Your task to perform on an android device: Clear all items from cart on ebay.com. Search for alienware area 51 on ebay.com, select the first entry, add it to the cart, then select checkout. Image 0: 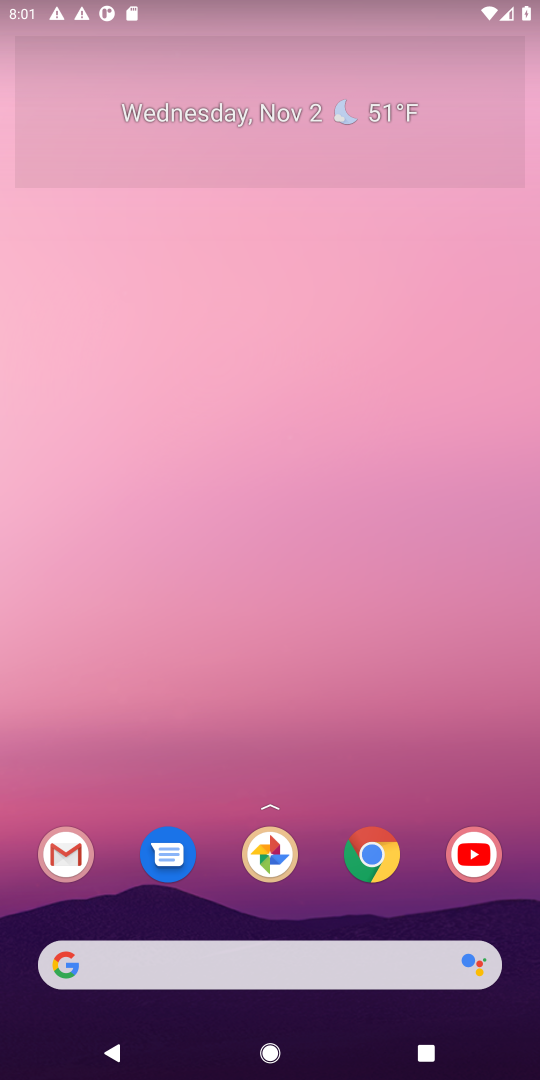
Step 0: click (381, 865)
Your task to perform on an android device: Clear all items from cart on ebay.com. Search for alienware area 51 on ebay.com, select the first entry, add it to the cart, then select checkout. Image 1: 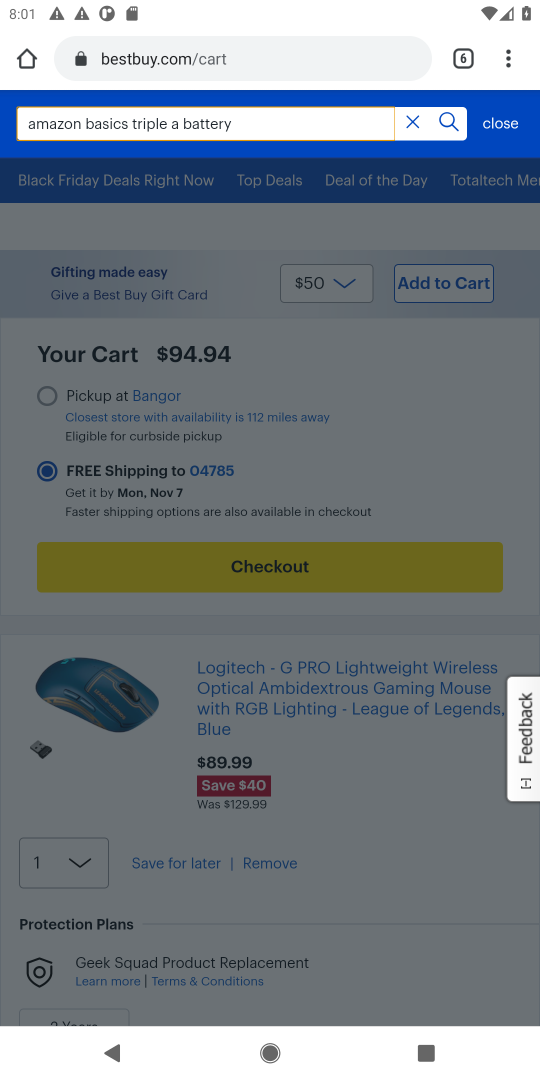
Step 1: click (464, 57)
Your task to perform on an android device: Clear all items from cart on ebay.com. Search for alienware area 51 on ebay.com, select the first entry, add it to the cart, then select checkout. Image 2: 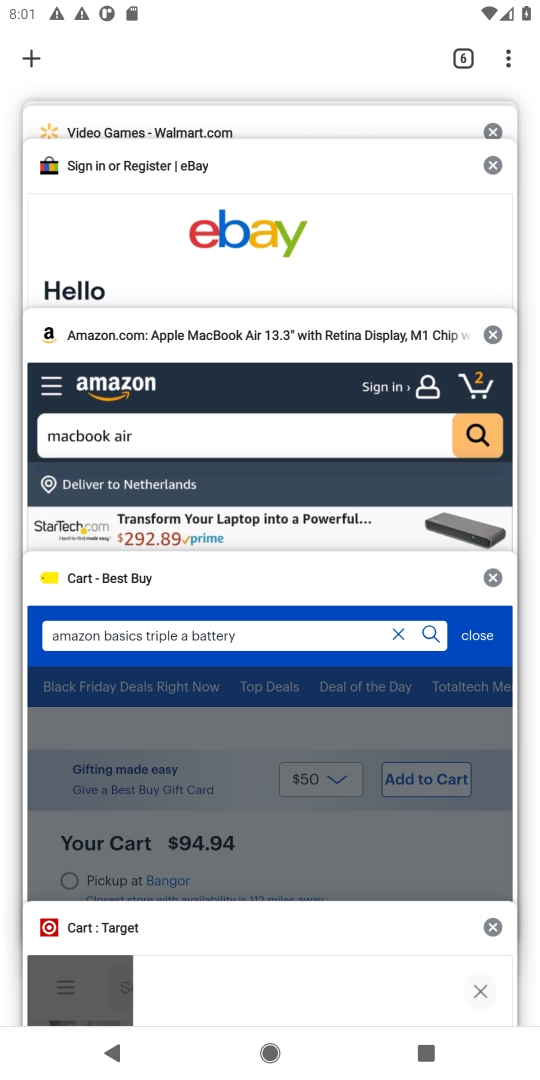
Step 2: click (269, 193)
Your task to perform on an android device: Clear all items from cart on ebay.com. Search for alienware area 51 on ebay.com, select the first entry, add it to the cart, then select checkout. Image 3: 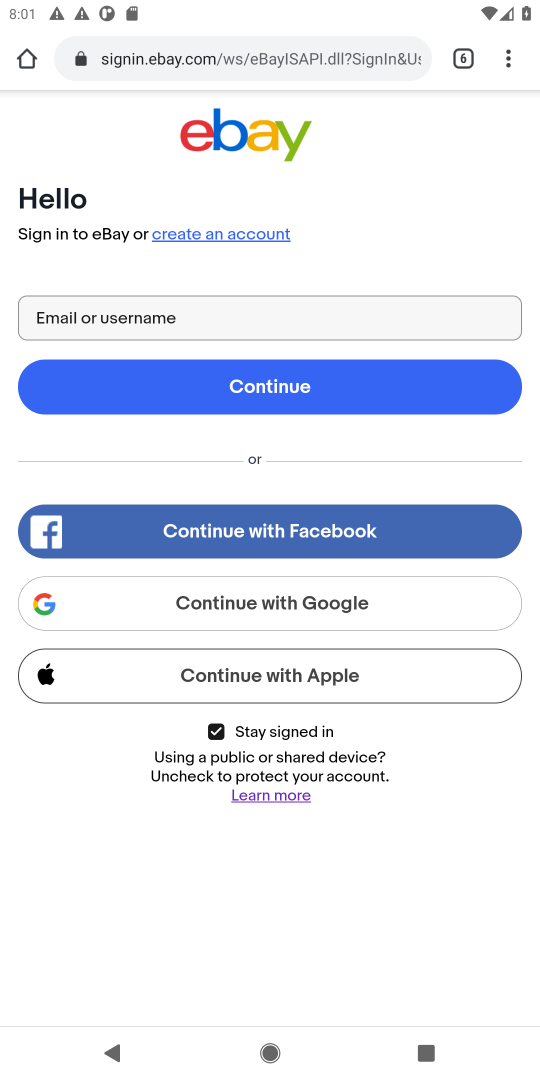
Step 3: press back button
Your task to perform on an android device: Clear all items from cart on ebay.com. Search for alienware area 51 on ebay.com, select the first entry, add it to the cart, then select checkout. Image 4: 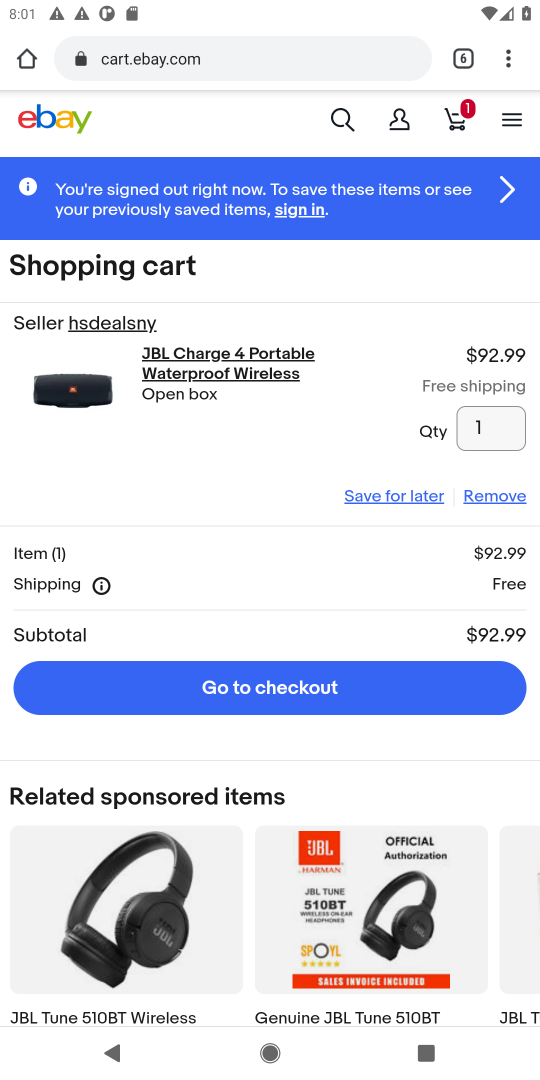
Step 4: click (349, 126)
Your task to perform on an android device: Clear all items from cart on ebay.com. Search for alienware area 51 on ebay.com, select the first entry, add it to the cart, then select checkout. Image 5: 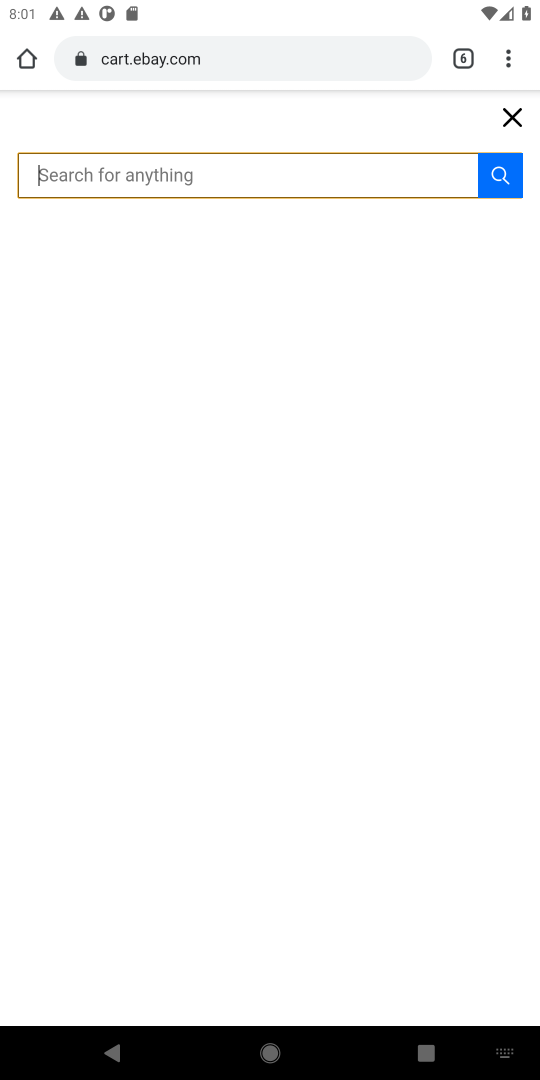
Step 5: type "alienware area 51"
Your task to perform on an android device: Clear all items from cart on ebay.com. Search for alienware area 51 on ebay.com, select the first entry, add it to the cart, then select checkout. Image 6: 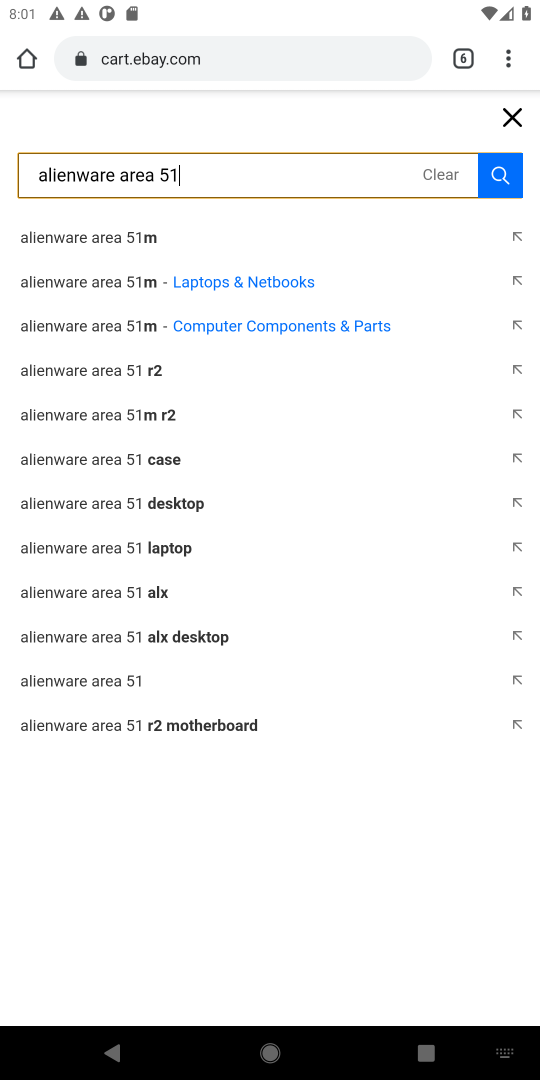
Step 6: click (97, 270)
Your task to perform on an android device: Clear all items from cart on ebay.com. Search for alienware area 51 on ebay.com, select the first entry, add it to the cart, then select checkout. Image 7: 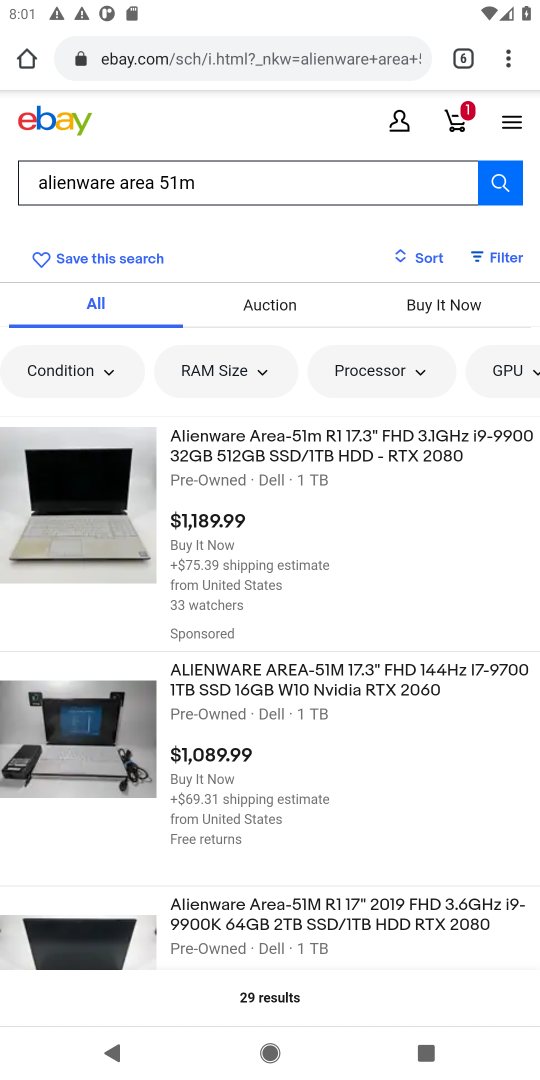
Step 7: click (243, 464)
Your task to perform on an android device: Clear all items from cart on ebay.com. Search for alienware area 51 on ebay.com, select the first entry, add it to the cart, then select checkout. Image 8: 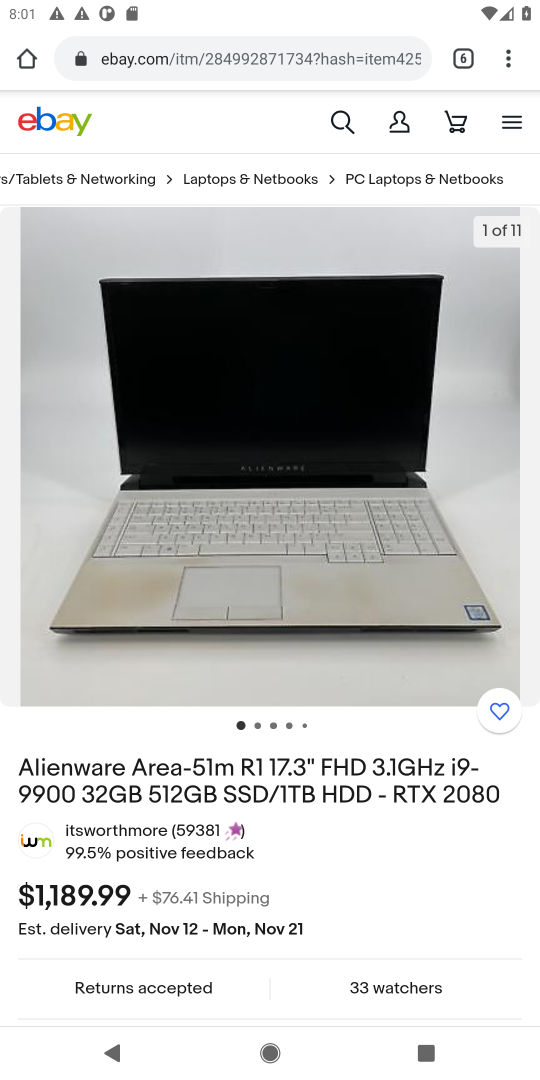
Step 8: drag from (286, 882) to (438, 80)
Your task to perform on an android device: Clear all items from cart on ebay.com. Search for alienware area 51 on ebay.com, select the first entry, add it to the cart, then select checkout. Image 9: 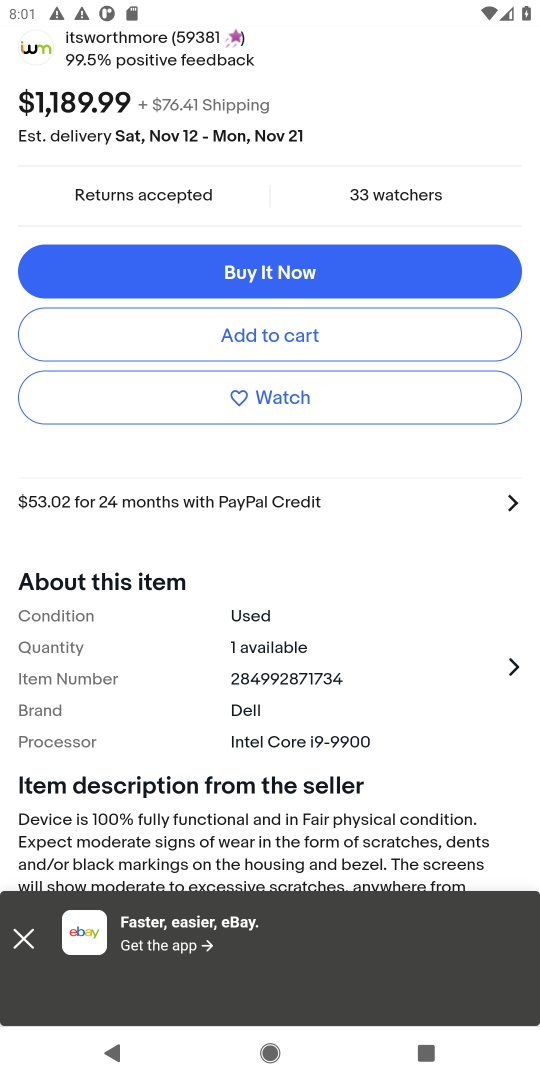
Step 9: click (291, 340)
Your task to perform on an android device: Clear all items from cart on ebay.com. Search for alienware area 51 on ebay.com, select the first entry, add it to the cart, then select checkout. Image 10: 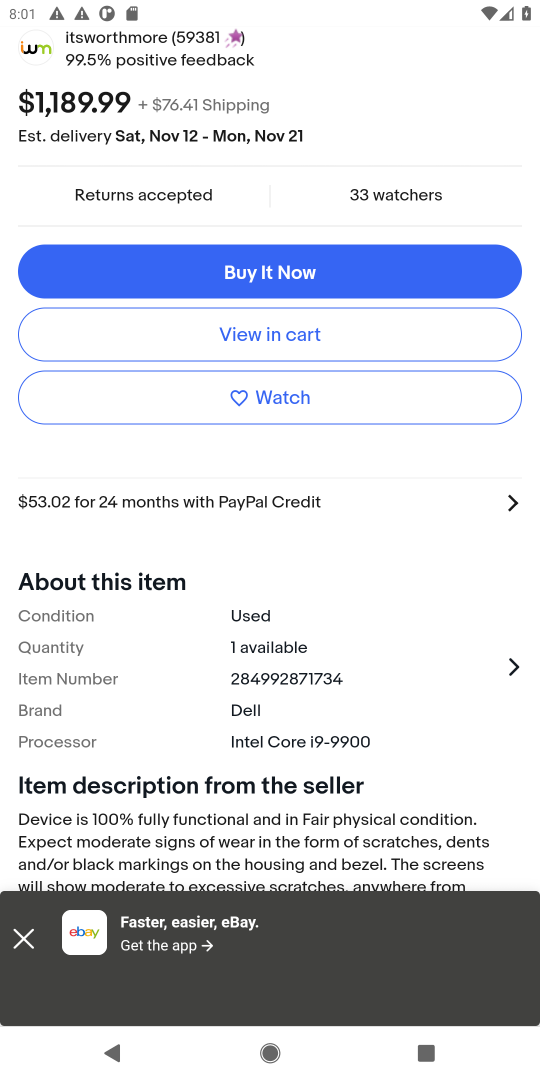
Step 10: task complete